Your task to perform on an android device: Do I have any events this weekend? Image 0: 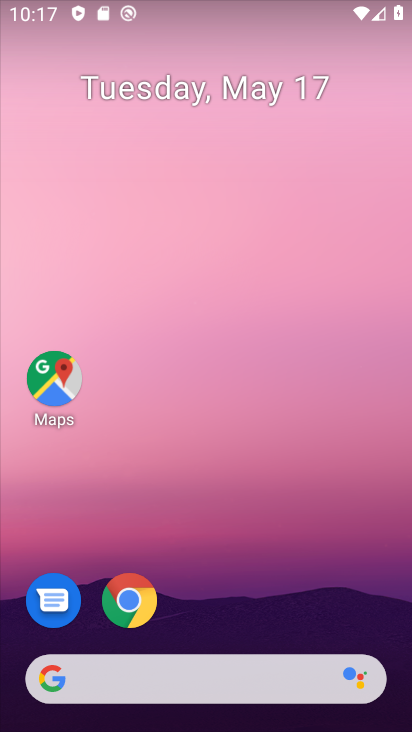
Step 0: drag from (258, 435) to (303, 92)
Your task to perform on an android device: Do I have any events this weekend? Image 1: 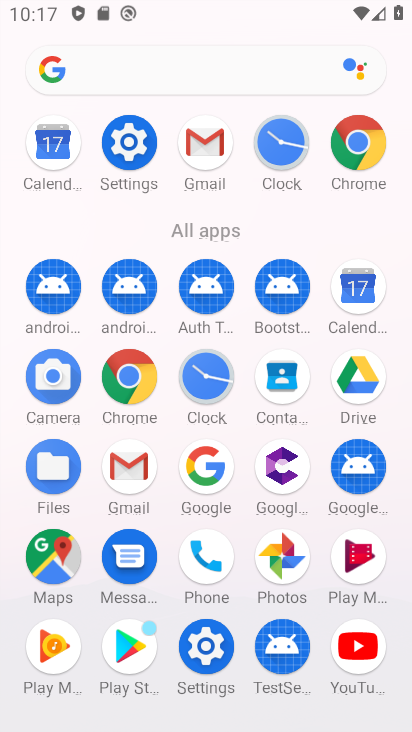
Step 1: click (350, 300)
Your task to perform on an android device: Do I have any events this weekend? Image 2: 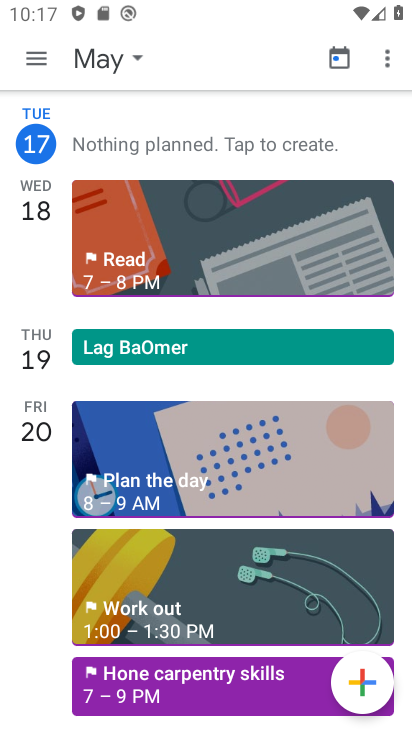
Step 2: drag from (128, 600) to (191, 269)
Your task to perform on an android device: Do I have any events this weekend? Image 3: 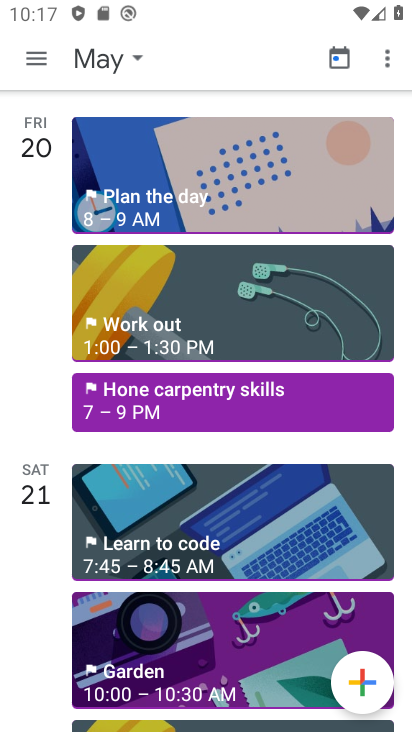
Step 3: drag from (182, 502) to (241, 266)
Your task to perform on an android device: Do I have any events this weekend? Image 4: 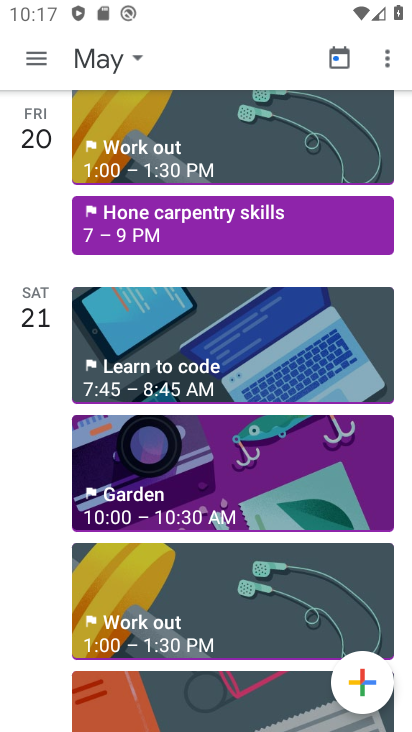
Step 4: click (163, 471)
Your task to perform on an android device: Do I have any events this weekend? Image 5: 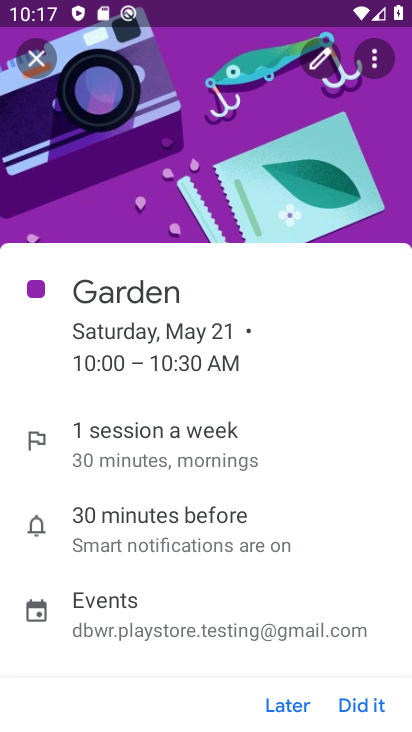
Step 5: task complete